Your task to perform on an android device: Open internet settings Image 0: 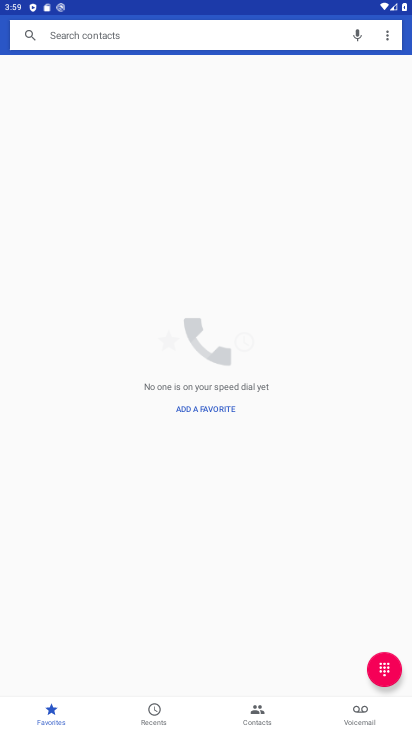
Step 0: drag from (303, 705) to (318, 398)
Your task to perform on an android device: Open internet settings Image 1: 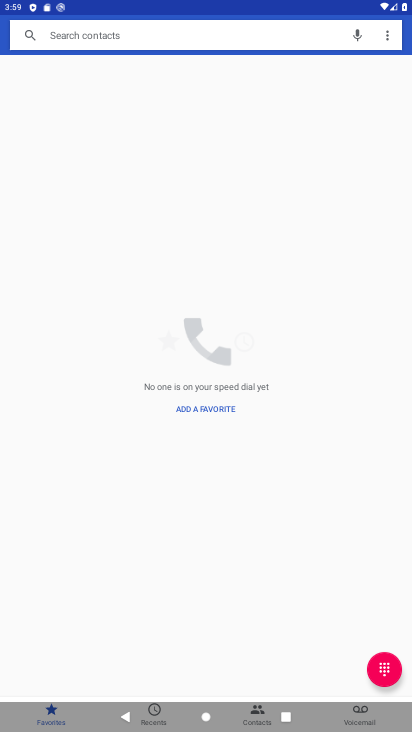
Step 1: press home button
Your task to perform on an android device: Open internet settings Image 2: 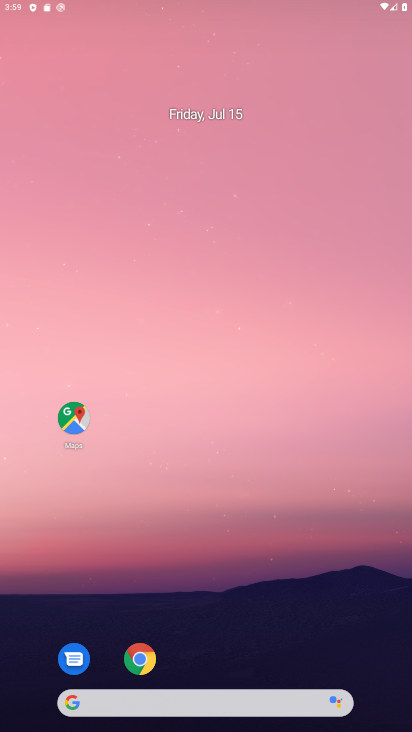
Step 2: drag from (303, 705) to (282, 64)
Your task to perform on an android device: Open internet settings Image 3: 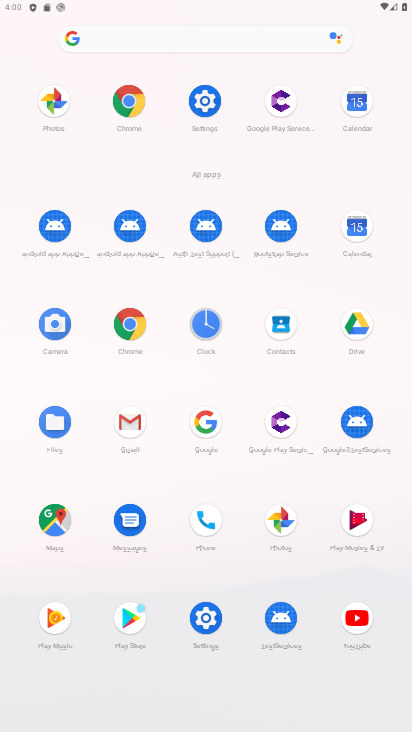
Step 3: click (198, 99)
Your task to perform on an android device: Open internet settings Image 4: 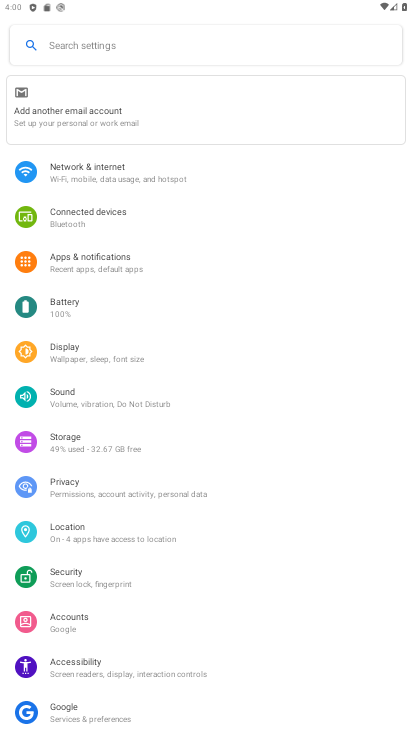
Step 4: click (146, 177)
Your task to perform on an android device: Open internet settings Image 5: 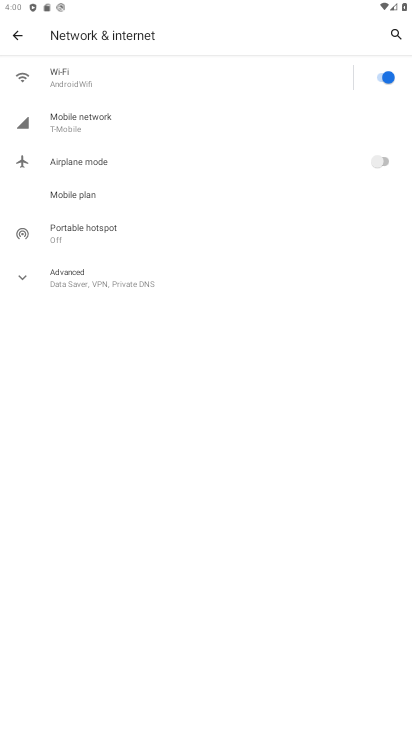
Step 5: task complete